Your task to perform on an android device: delete location history Image 0: 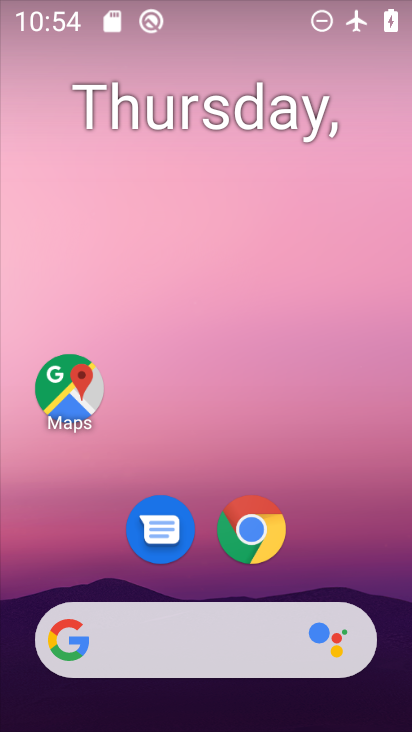
Step 0: click (78, 393)
Your task to perform on an android device: delete location history Image 1: 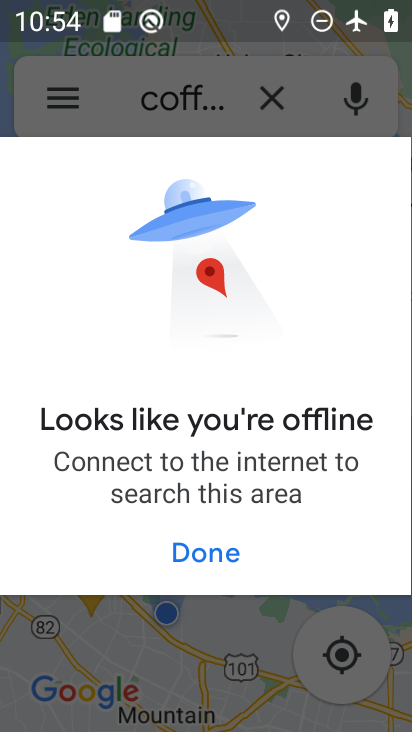
Step 1: task complete